Your task to perform on an android device: Go to battery settings Image 0: 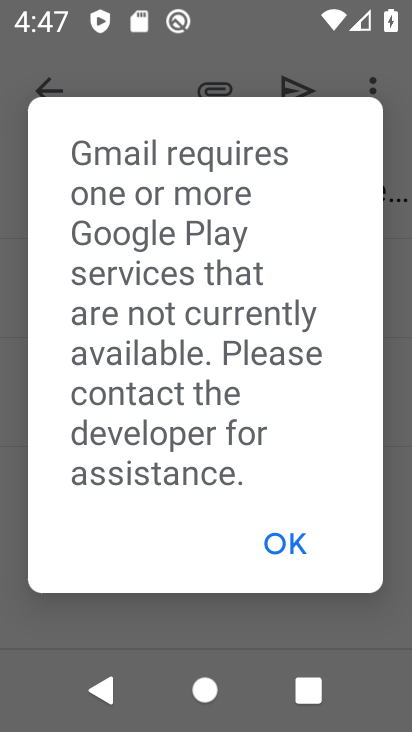
Step 0: click (293, 543)
Your task to perform on an android device: Go to battery settings Image 1: 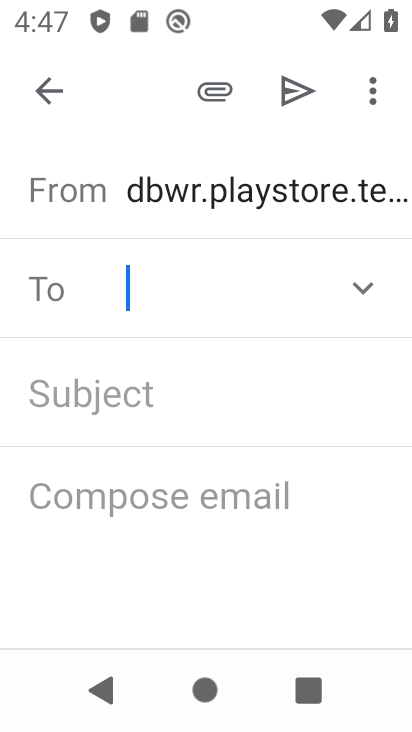
Step 1: press home button
Your task to perform on an android device: Go to battery settings Image 2: 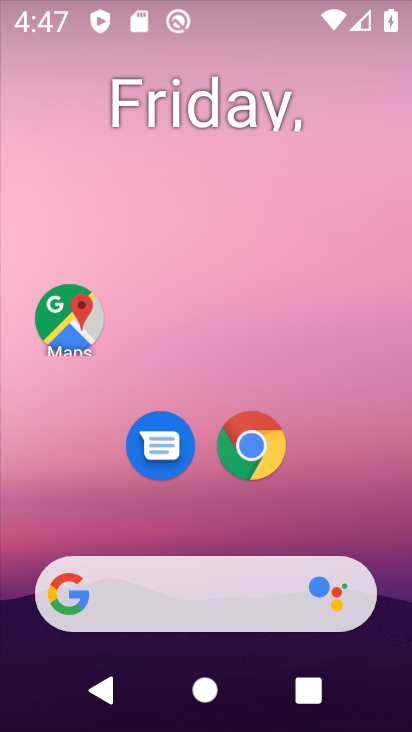
Step 2: drag from (315, 513) to (238, 7)
Your task to perform on an android device: Go to battery settings Image 3: 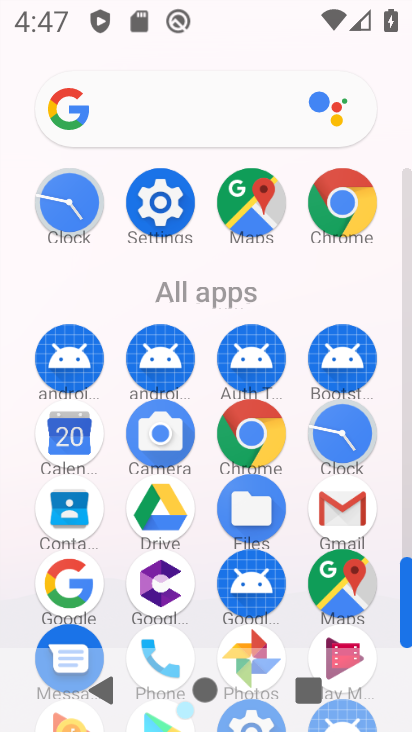
Step 3: click (157, 202)
Your task to perform on an android device: Go to battery settings Image 4: 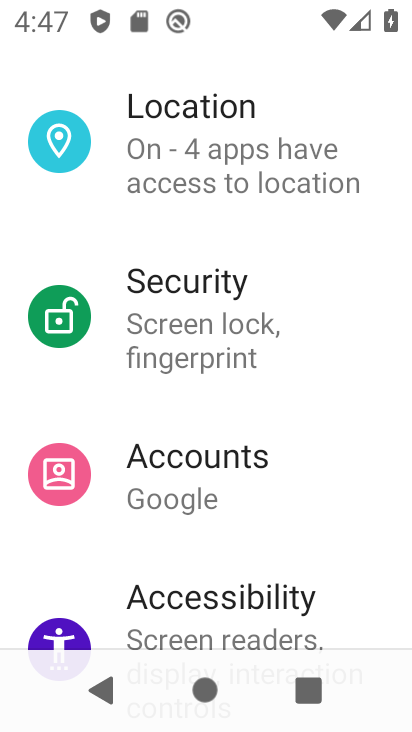
Step 4: drag from (157, 202) to (171, 578)
Your task to perform on an android device: Go to battery settings Image 5: 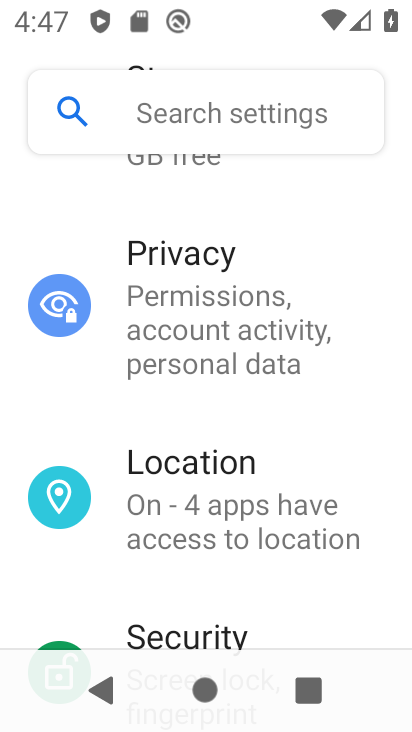
Step 5: drag from (182, 283) to (200, 599)
Your task to perform on an android device: Go to battery settings Image 6: 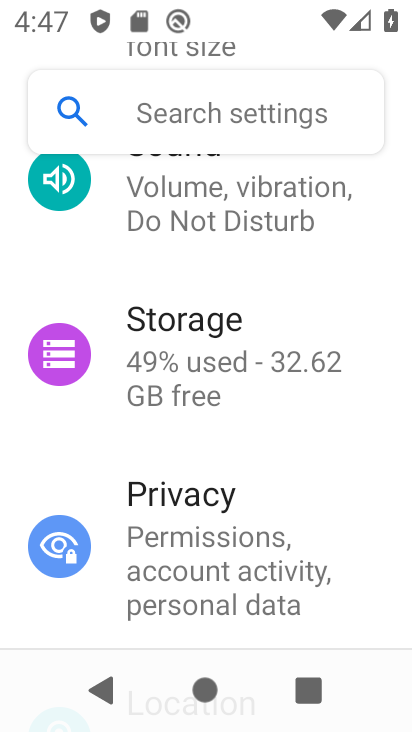
Step 6: drag from (221, 268) to (222, 648)
Your task to perform on an android device: Go to battery settings Image 7: 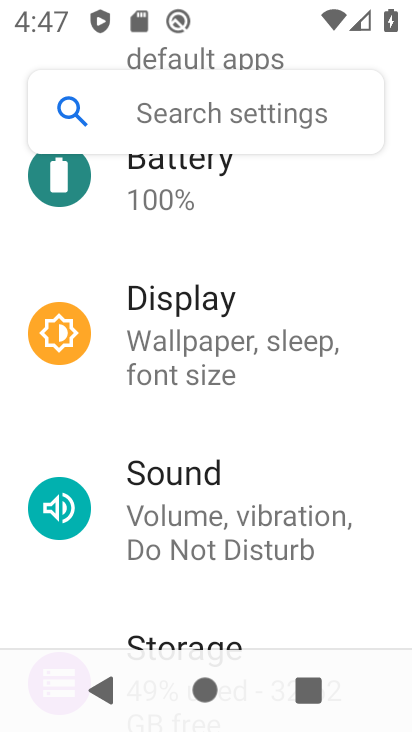
Step 7: click (221, 177)
Your task to perform on an android device: Go to battery settings Image 8: 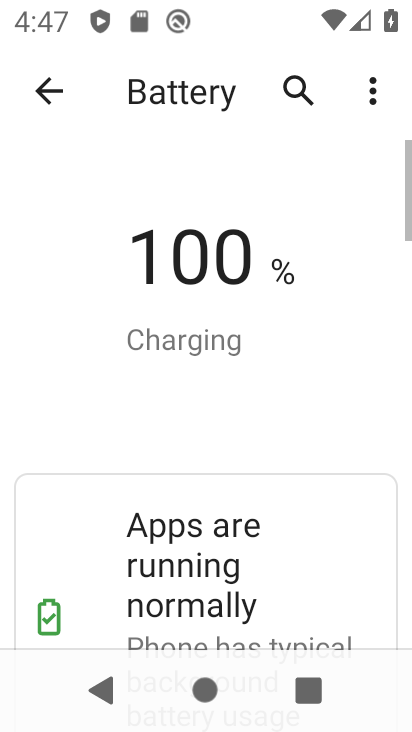
Step 8: task complete